Your task to perform on an android device: Go to internet settings Image 0: 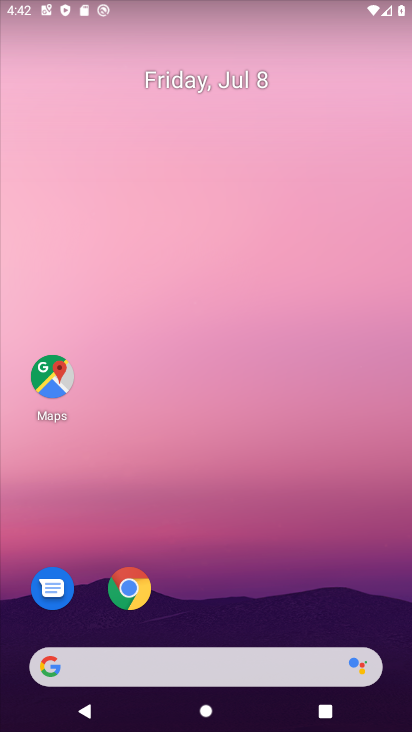
Step 0: drag from (179, 610) to (332, 2)
Your task to perform on an android device: Go to internet settings Image 1: 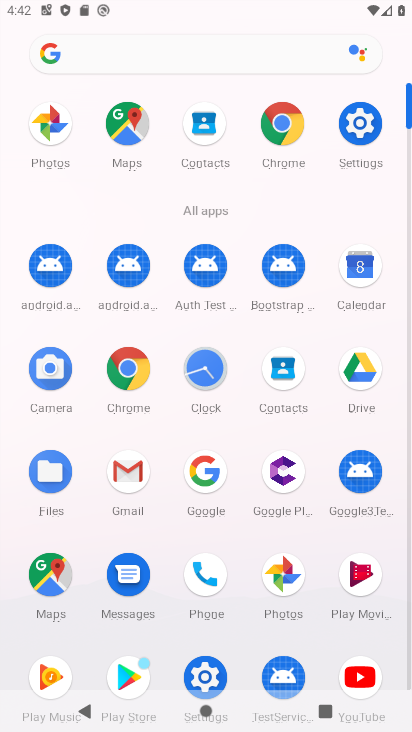
Step 1: click (369, 147)
Your task to perform on an android device: Go to internet settings Image 2: 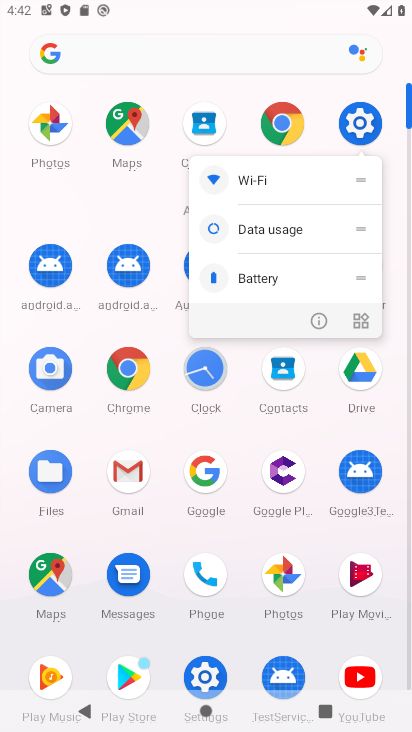
Step 2: click (367, 128)
Your task to perform on an android device: Go to internet settings Image 3: 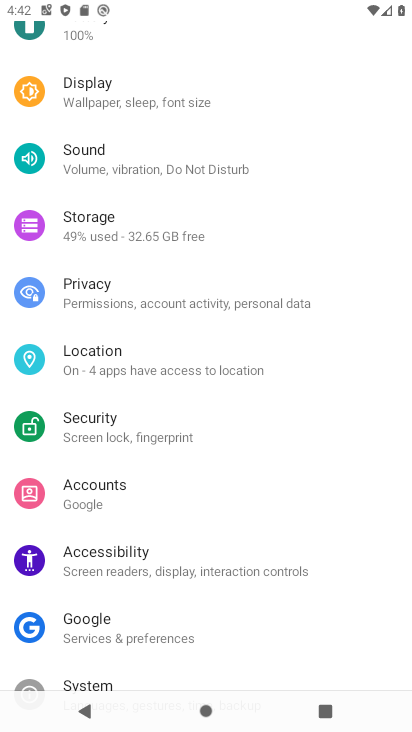
Step 3: drag from (179, 263) to (173, 662)
Your task to perform on an android device: Go to internet settings Image 4: 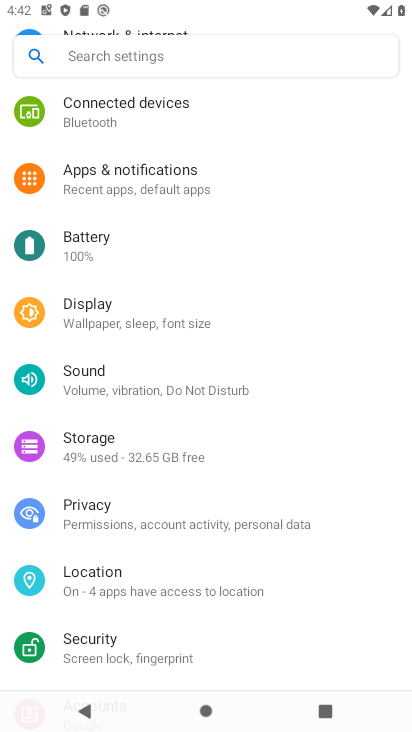
Step 4: drag from (246, 149) to (243, 482)
Your task to perform on an android device: Go to internet settings Image 5: 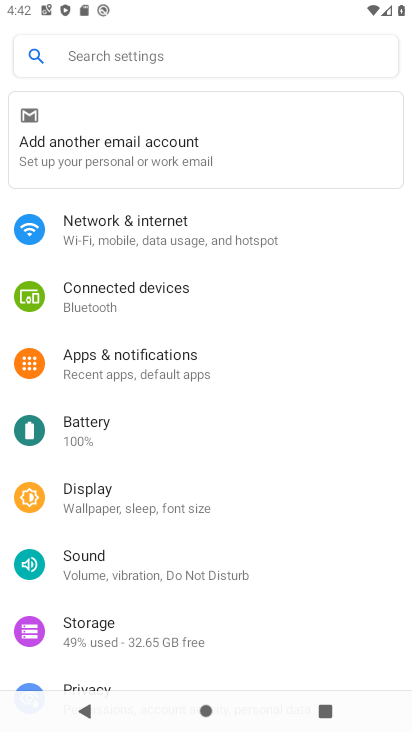
Step 5: click (196, 225)
Your task to perform on an android device: Go to internet settings Image 6: 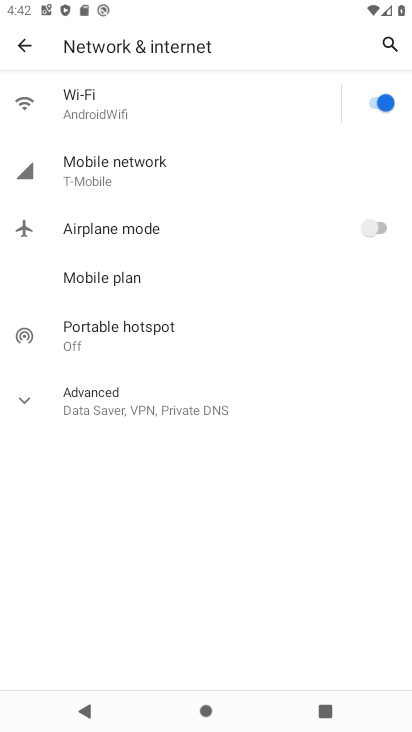
Step 6: task complete